Your task to perform on an android device: toggle data saver in the chrome app Image 0: 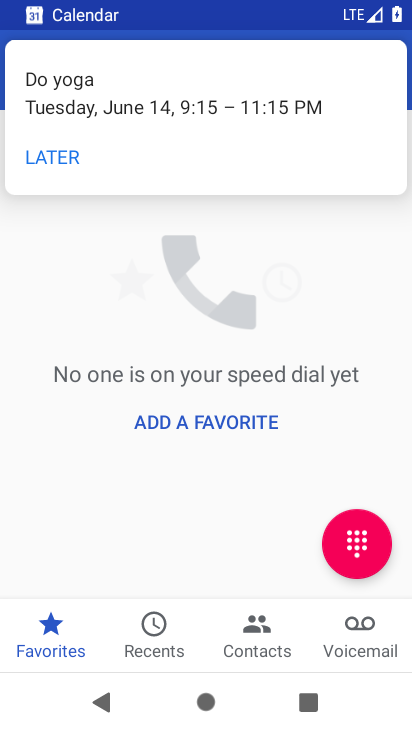
Step 0: press home button
Your task to perform on an android device: toggle data saver in the chrome app Image 1: 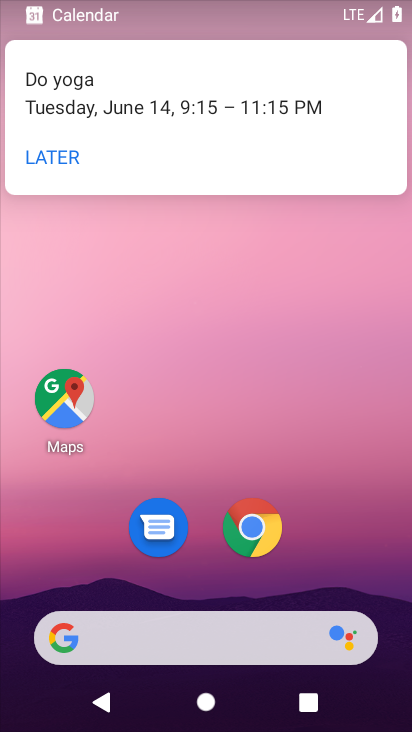
Step 1: click (258, 518)
Your task to perform on an android device: toggle data saver in the chrome app Image 2: 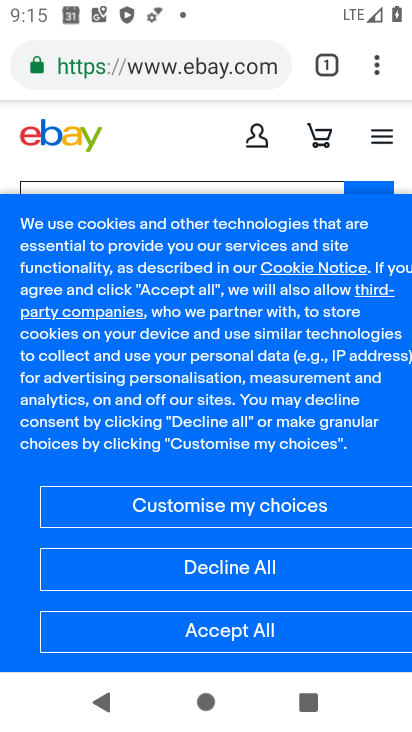
Step 2: drag from (377, 66) to (232, 575)
Your task to perform on an android device: toggle data saver in the chrome app Image 3: 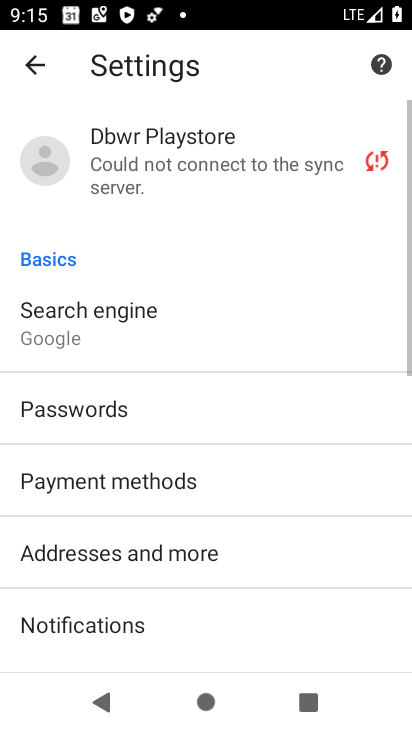
Step 3: drag from (229, 628) to (343, 166)
Your task to perform on an android device: toggle data saver in the chrome app Image 4: 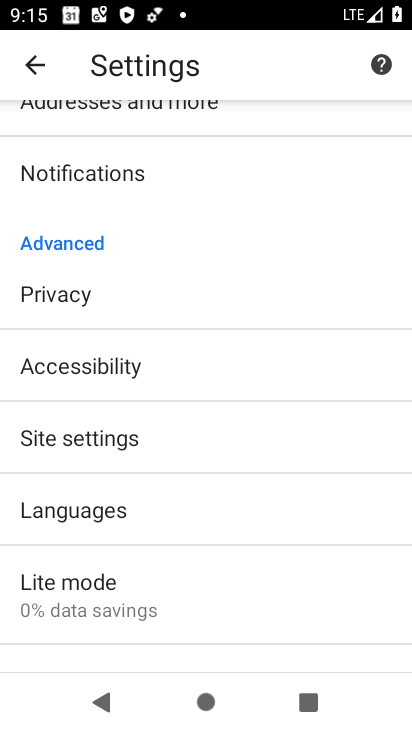
Step 4: click (135, 598)
Your task to perform on an android device: toggle data saver in the chrome app Image 5: 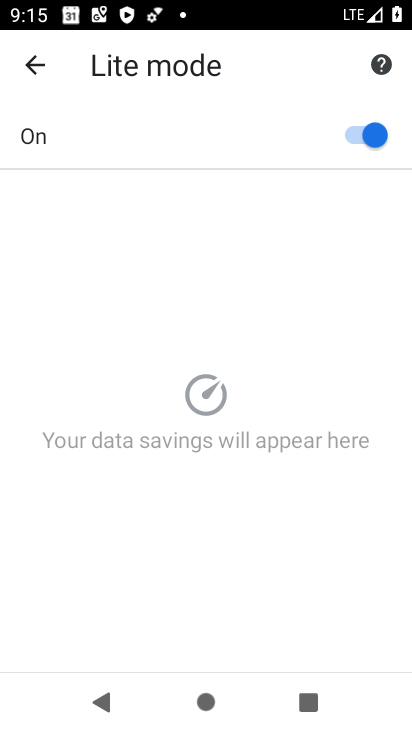
Step 5: click (355, 129)
Your task to perform on an android device: toggle data saver in the chrome app Image 6: 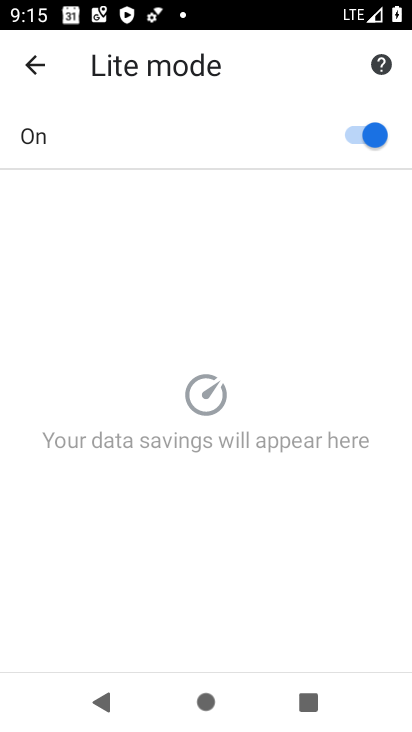
Step 6: click (351, 137)
Your task to perform on an android device: toggle data saver in the chrome app Image 7: 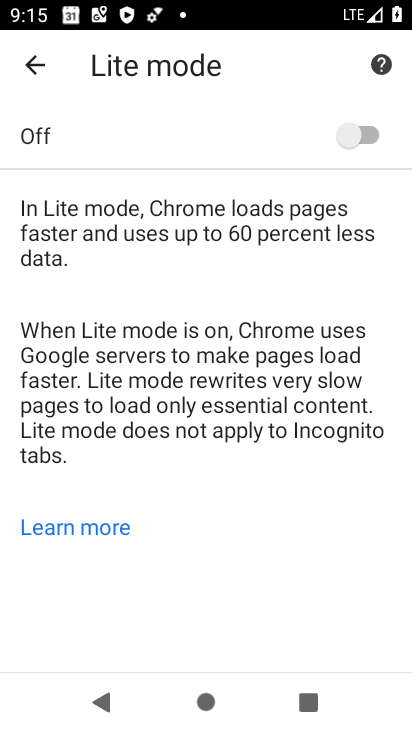
Step 7: task complete